Your task to perform on an android device: Clear the shopping cart on target.com. Search for "energizer triple a" on target.com, select the first entry, and add it to the cart. Image 0: 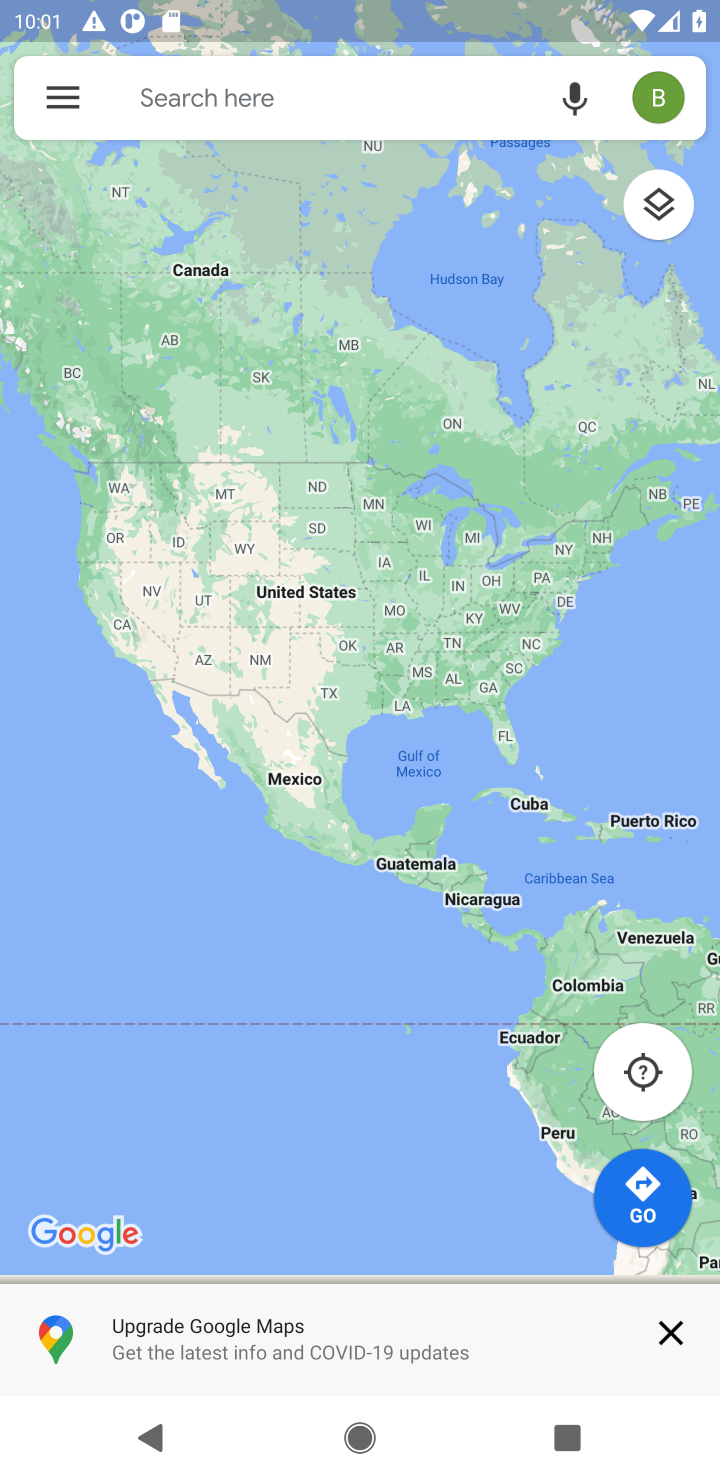
Step 0: press home button
Your task to perform on an android device: Clear the shopping cart on target.com. Search for "energizer triple a" on target.com, select the first entry, and add it to the cart. Image 1: 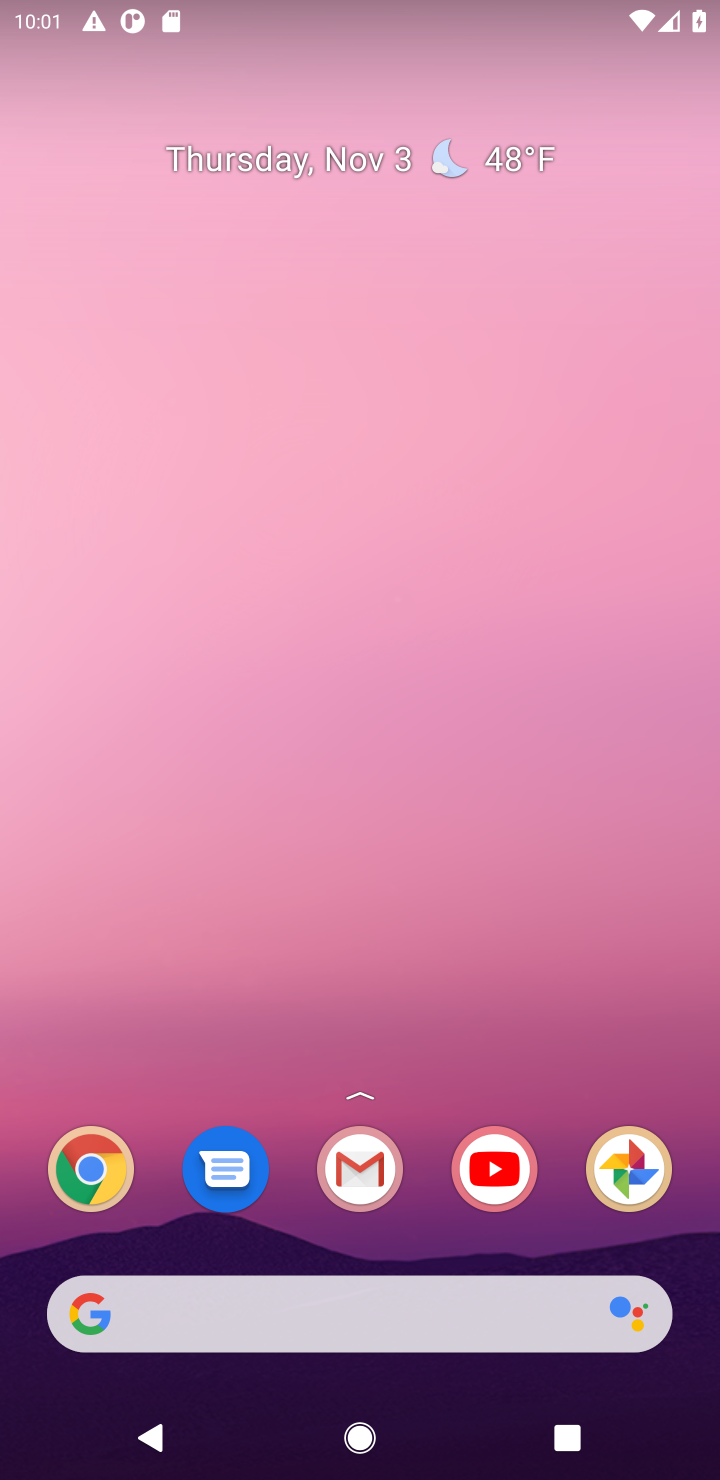
Step 1: drag from (440, 1105) to (451, 221)
Your task to perform on an android device: Clear the shopping cart on target.com. Search for "energizer triple a" on target.com, select the first entry, and add it to the cart. Image 2: 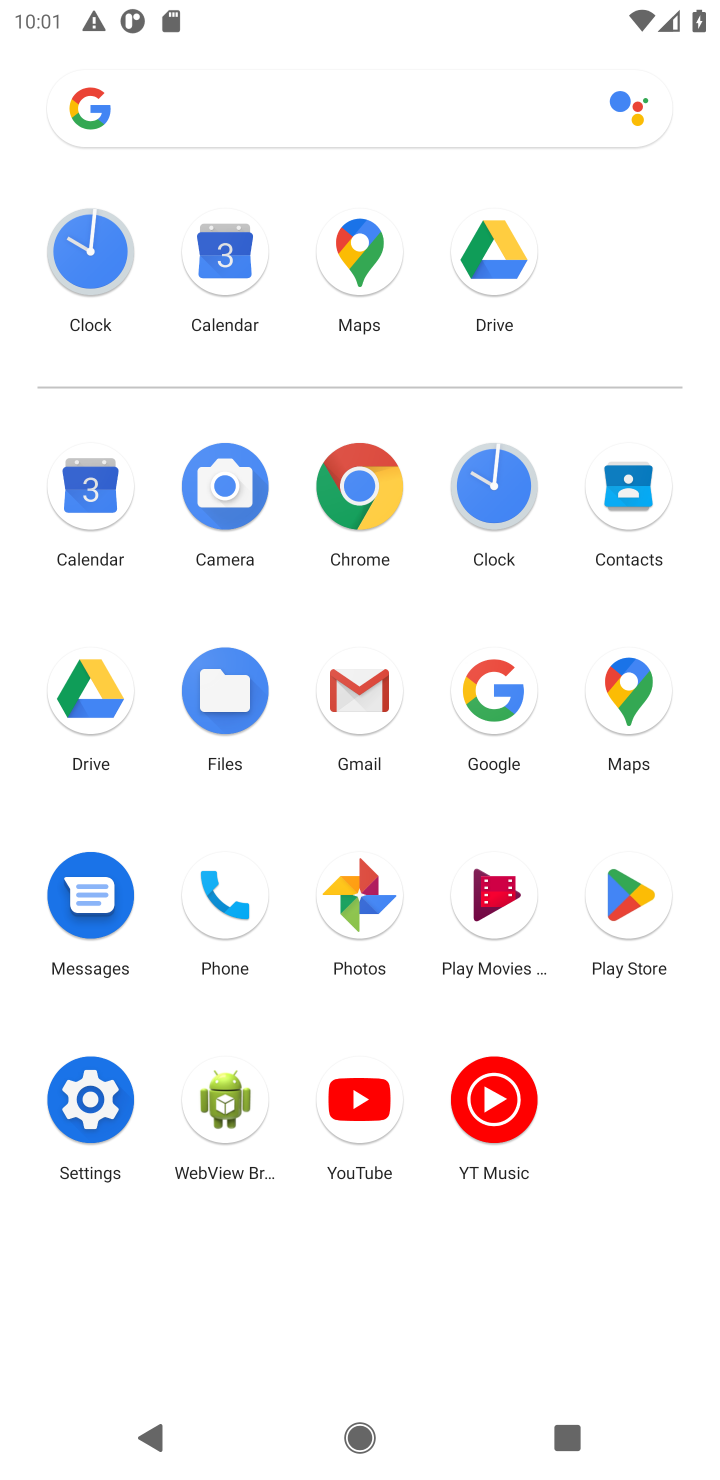
Step 2: click (369, 477)
Your task to perform on an android device: Clear the shopping cart on target.com. Search for "energizer triple a" on target.com, select the first entry, and add it to the cart. Image 3: 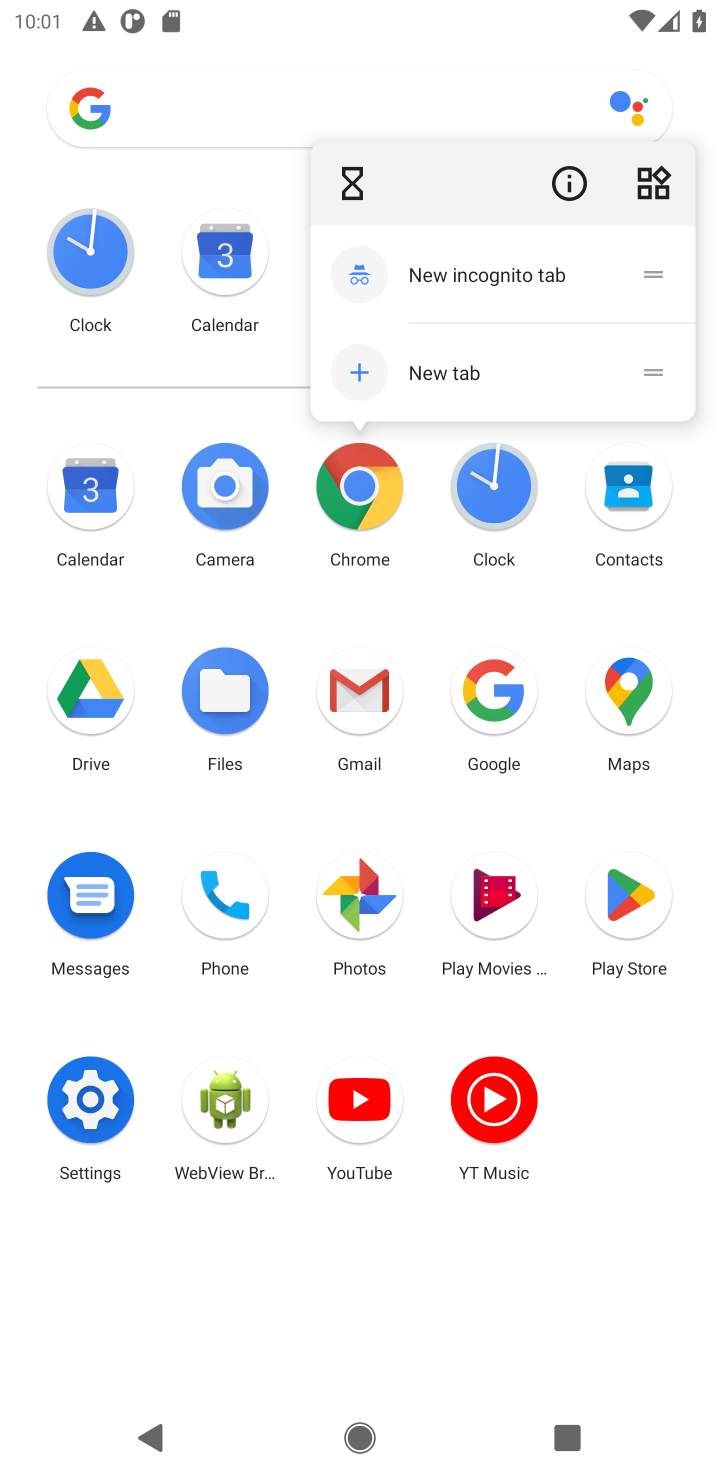
Step 3: click (359, 485)
Your task to perform on an android device: Clear the shopping cart on target.com. Search for "energizer triple a" on target.com, select the first entry, and add it to the cart. Image 4: 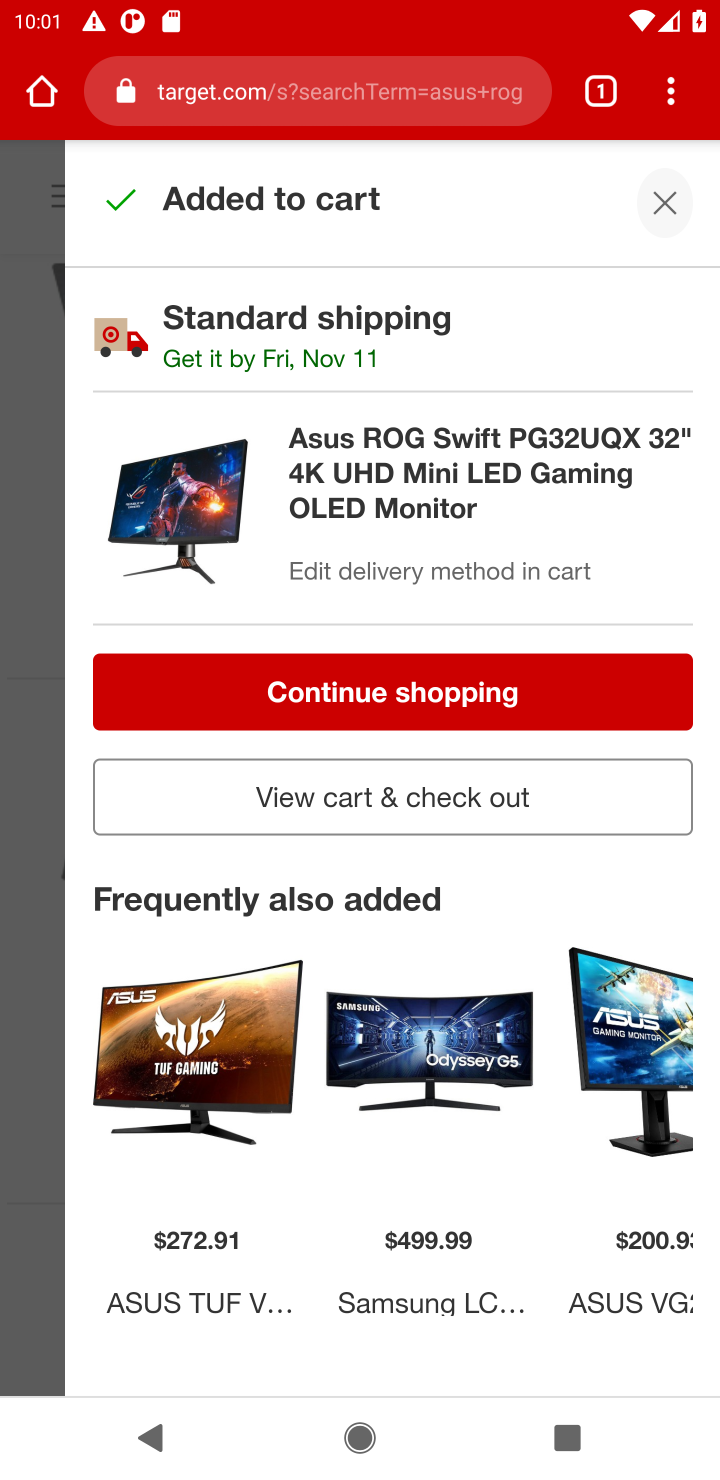
Step 4: click (434, 104)
Your task to perform on an android device: Clear the shopping cart on target.com. Search for "energizer triple a" on target.com, select the first entry, and add it to the cart. Image 5: 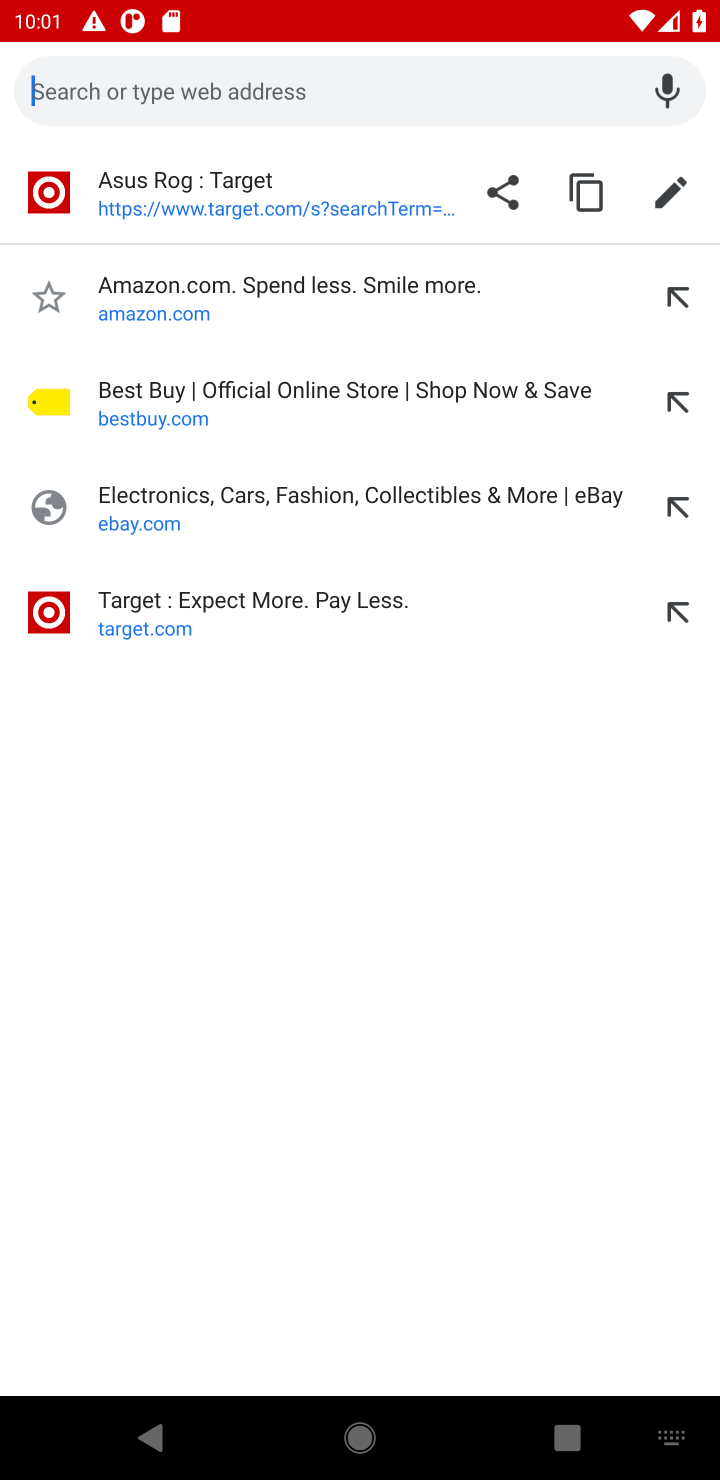
Step 5: type "target.com"
Your task to perform on an android device: Clear the shopping cart on target.com. Search for "energizer triple a" on target.com, select the first entry, and add it to the cart. Image 6: 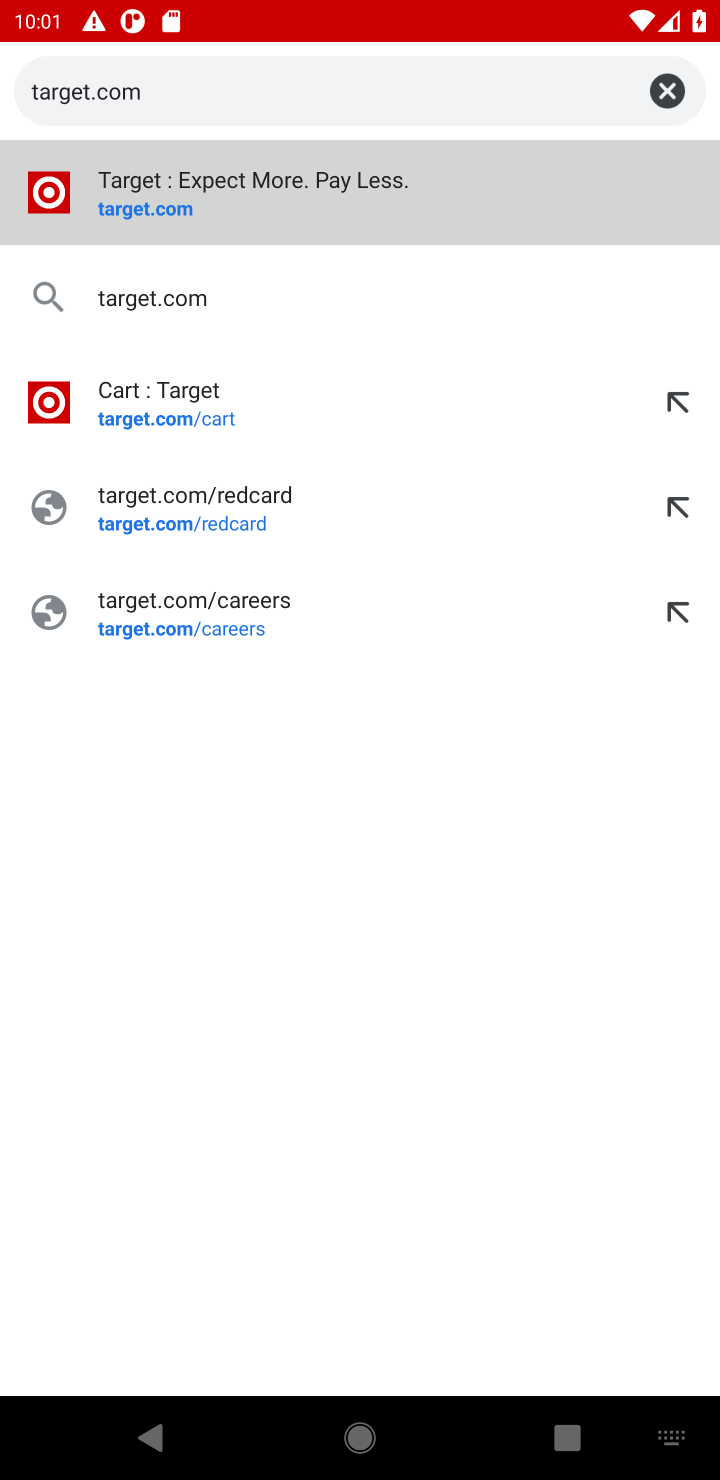
Step 6: press enter
Your task to perform on an android device: Clear the shopping cart on target.com. Search for "energizer triple a" on target.com, select the first entry, and add it to the cart. Image 7: 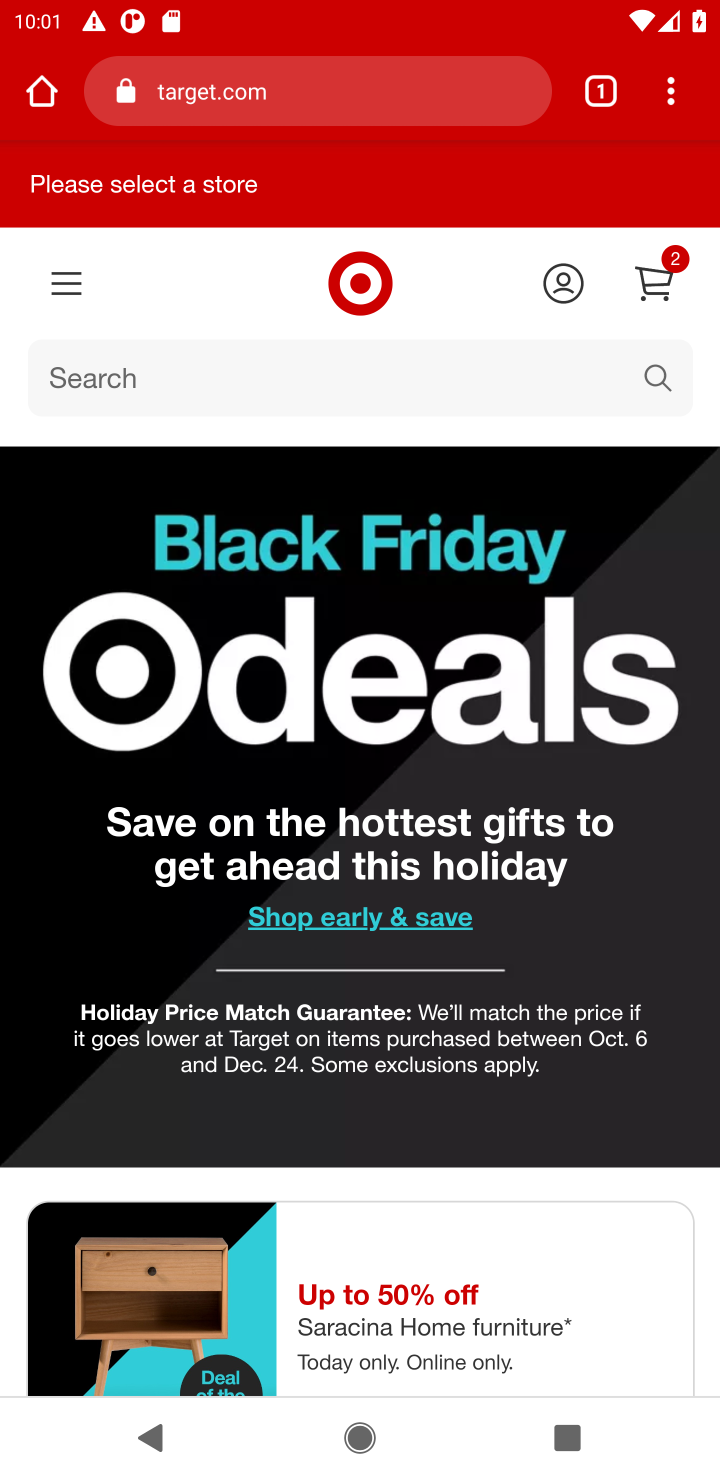
Step 7: click (675, 275)
Your task to perform on an android device: Clear the shopping cart on target.com. Search for "energizer triple a" on target.com, select the first entry, and add it to the cart. Image 8: 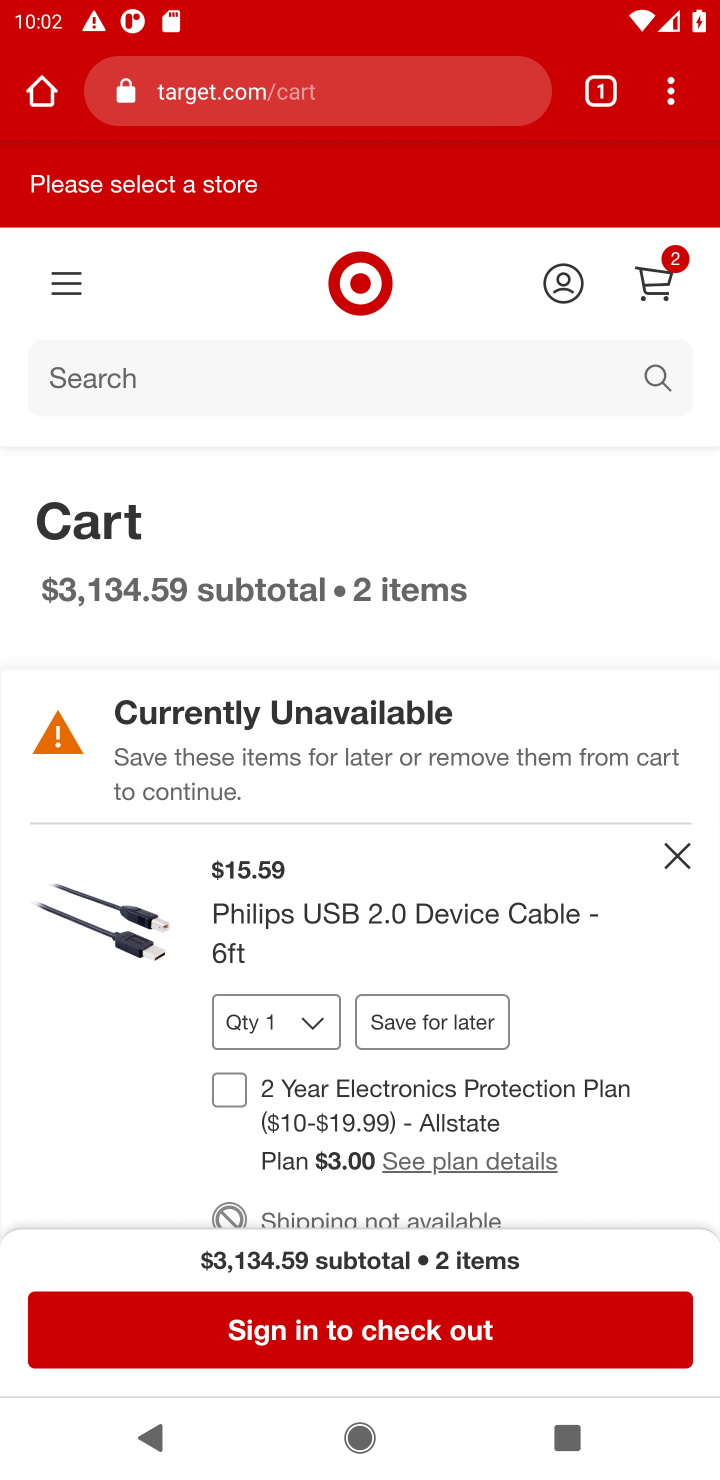
Step 8: click (680, 861)
Your task to perform on an android device: Clear the shopping cart on target.com. Search for "energizer triple a" on target.com, select the first entry, and add it to the cart. Image 9: 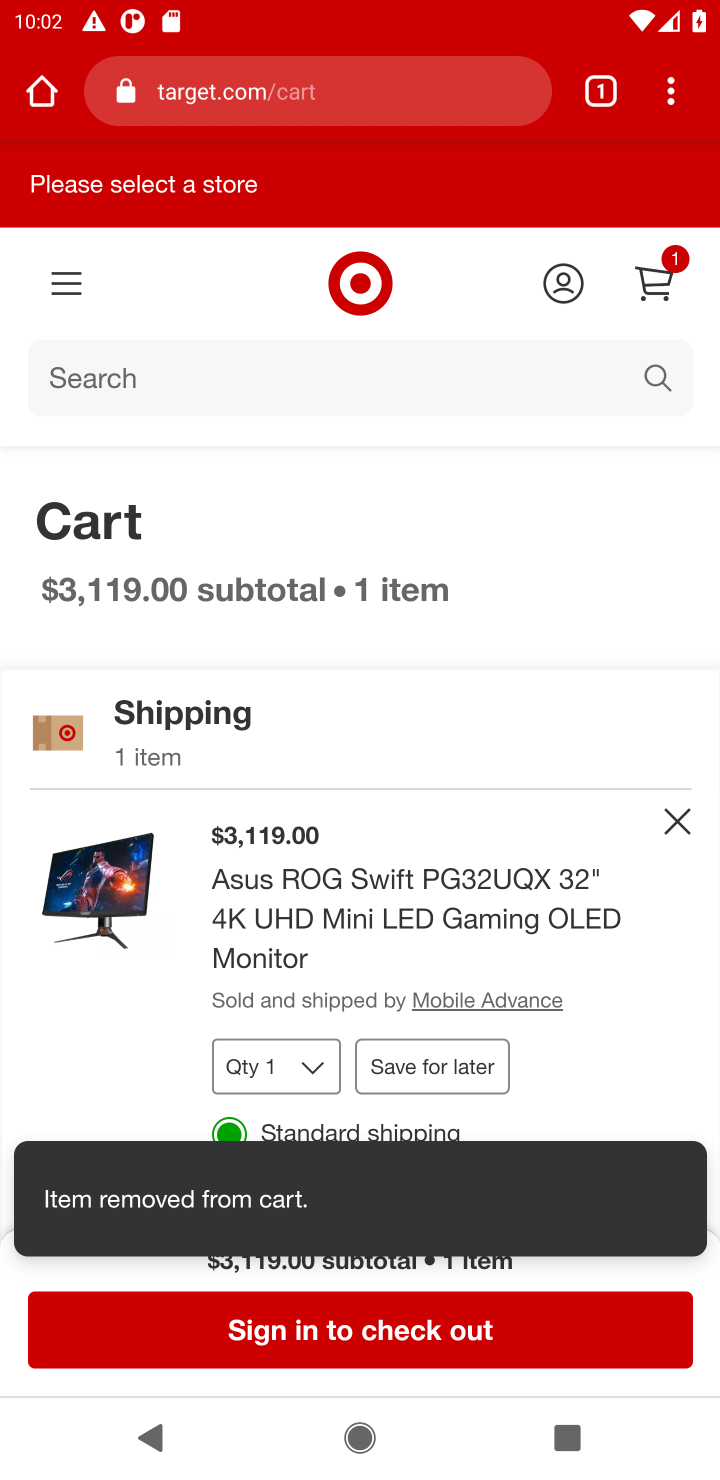
Step 9: click (670, 815)
Your task to perform on an android device: Clear the shopping cart on target.com. Search for "energizer triple a" on target.com, select the first entry, and add it to the cart. Image 10: 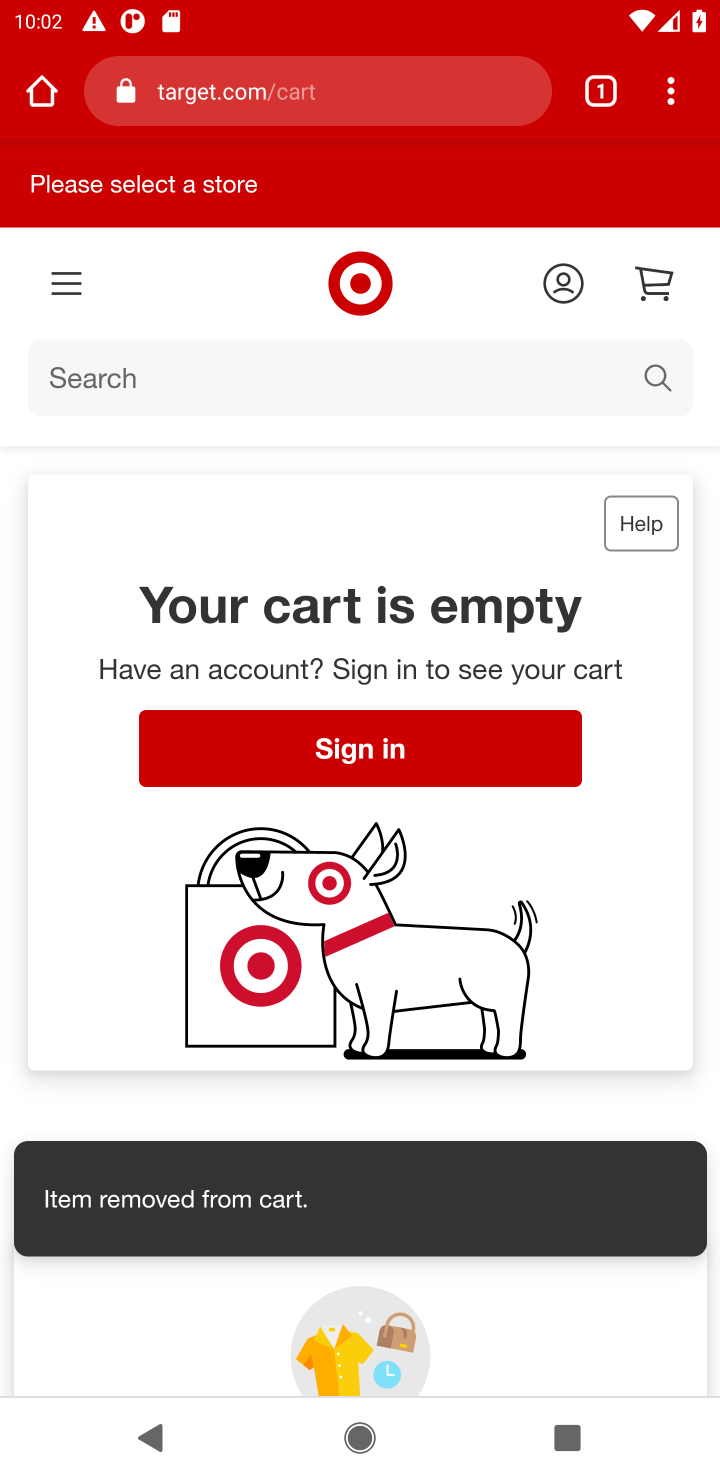
Step 10: click (218, 380)
Your task to perform on an android device: Clear the shopping cart on target.com. Search for "energizer triple a" on target.com, select the first entry, and add it to the cart. Image 11: 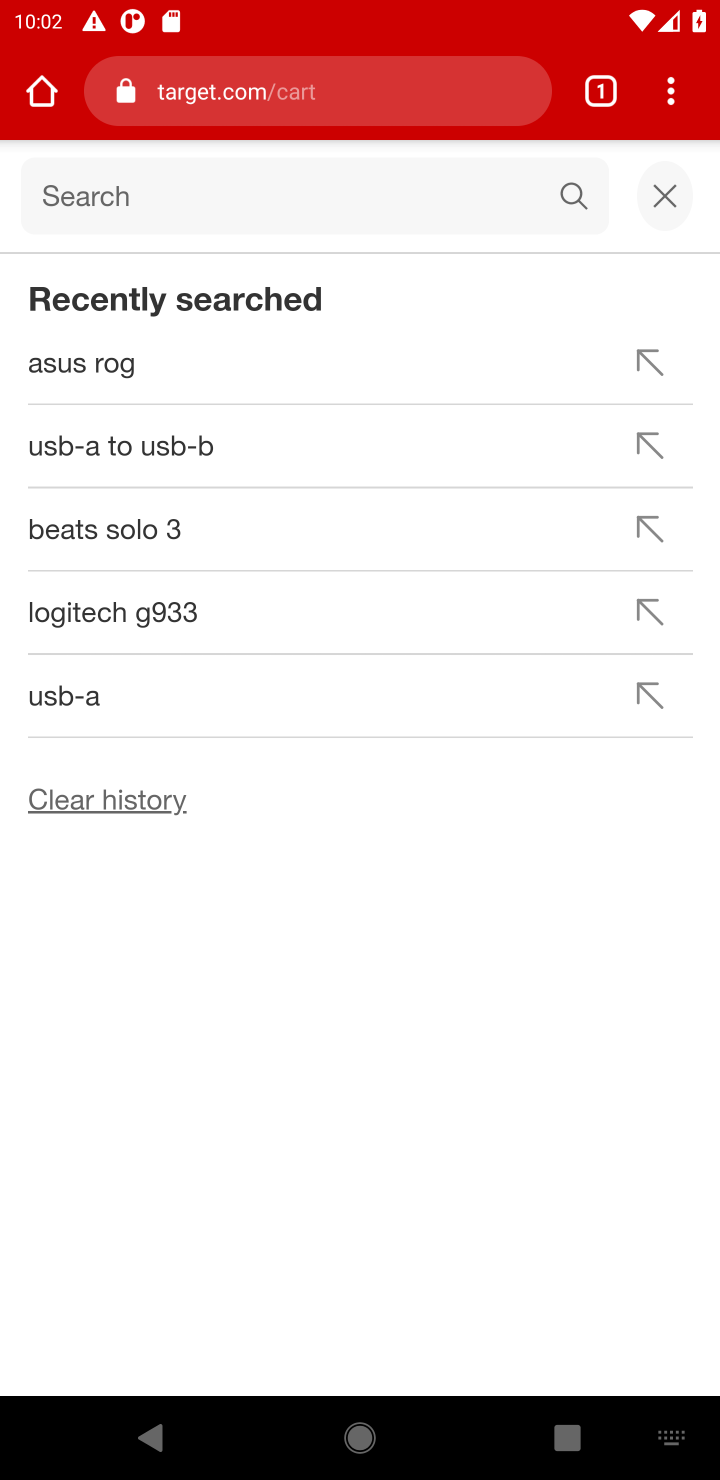
Step 11: type "energizer triple a"
Your task to perform on an android device: Clear the shopping cart on target.com. Search for "energizer triple a" on target.com, select the first entry, and add it to the cart. Image 12: 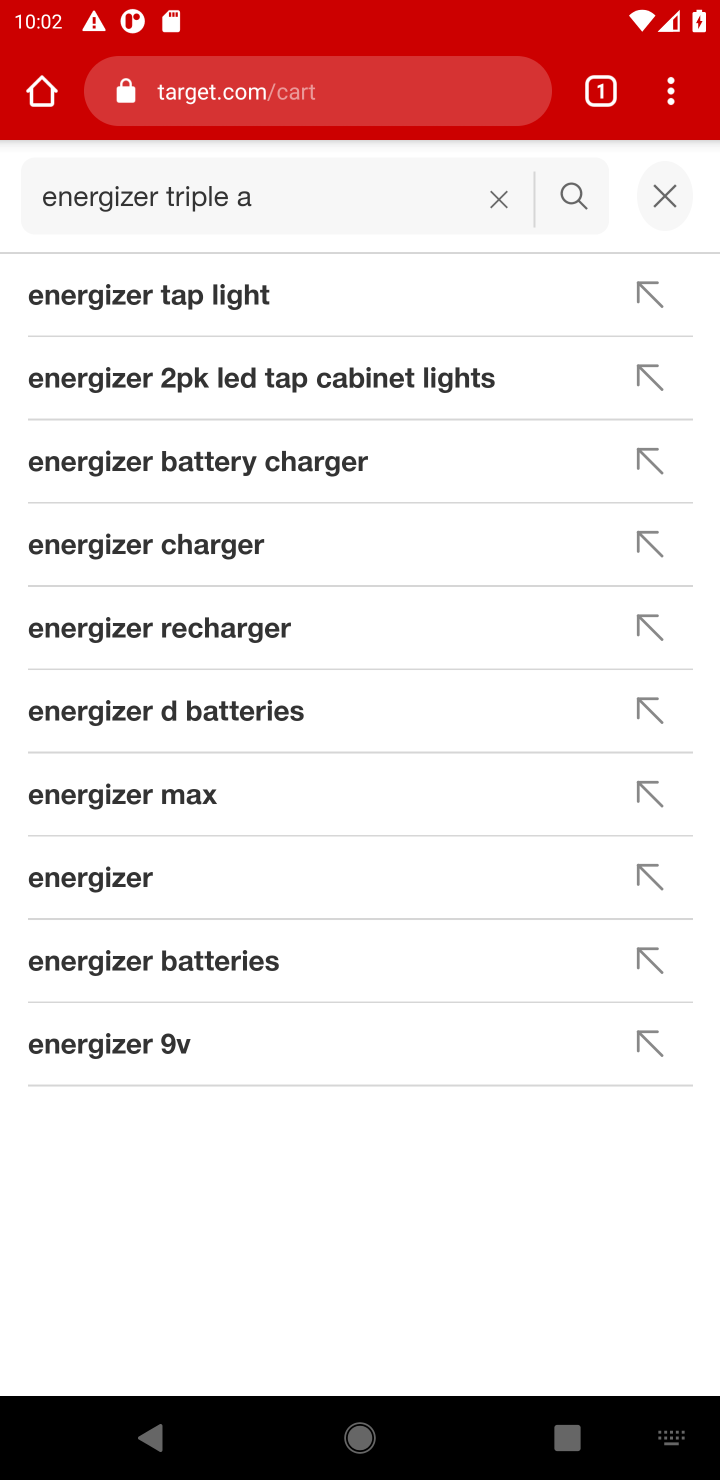
Step 12: press enter
Your task to perform on an android device: Clear the shopping cart on target.com. Search for "energizer triple a" on target.com, select the first entry, and add it to the cart. Image 13: 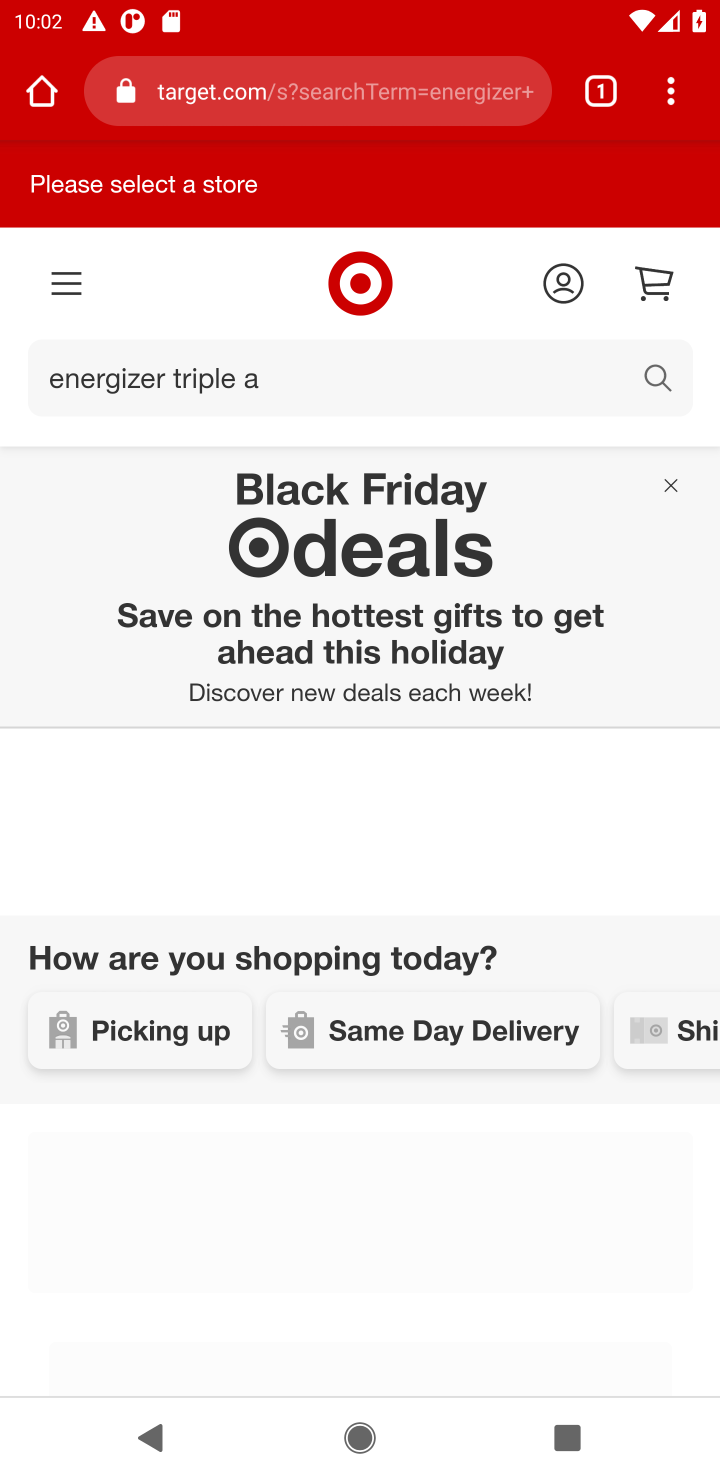
Step 13: drag from (387, 1163) to (459, 314)
Your task to perform on an android device: Clear the shopping cart on target.com. Search for "energizer triple a" on target.com, select the first entry, and add it to the cart. Image 14: 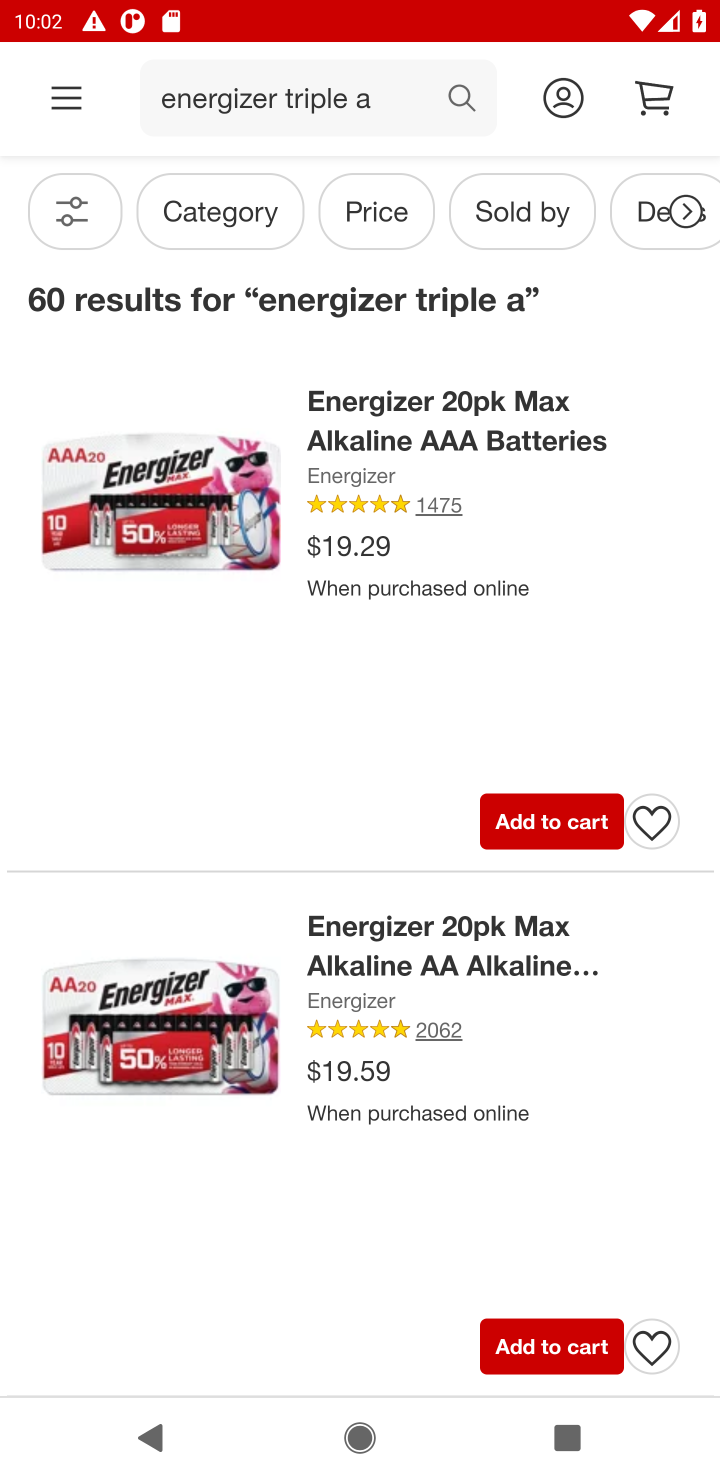
Step 14: click (526, 816)
Your task to perform on an android device: Clear the shopping cart on target.com. Search for "energizer triple a" on target.com, select the first entry, and add it to the cart. Image 15: 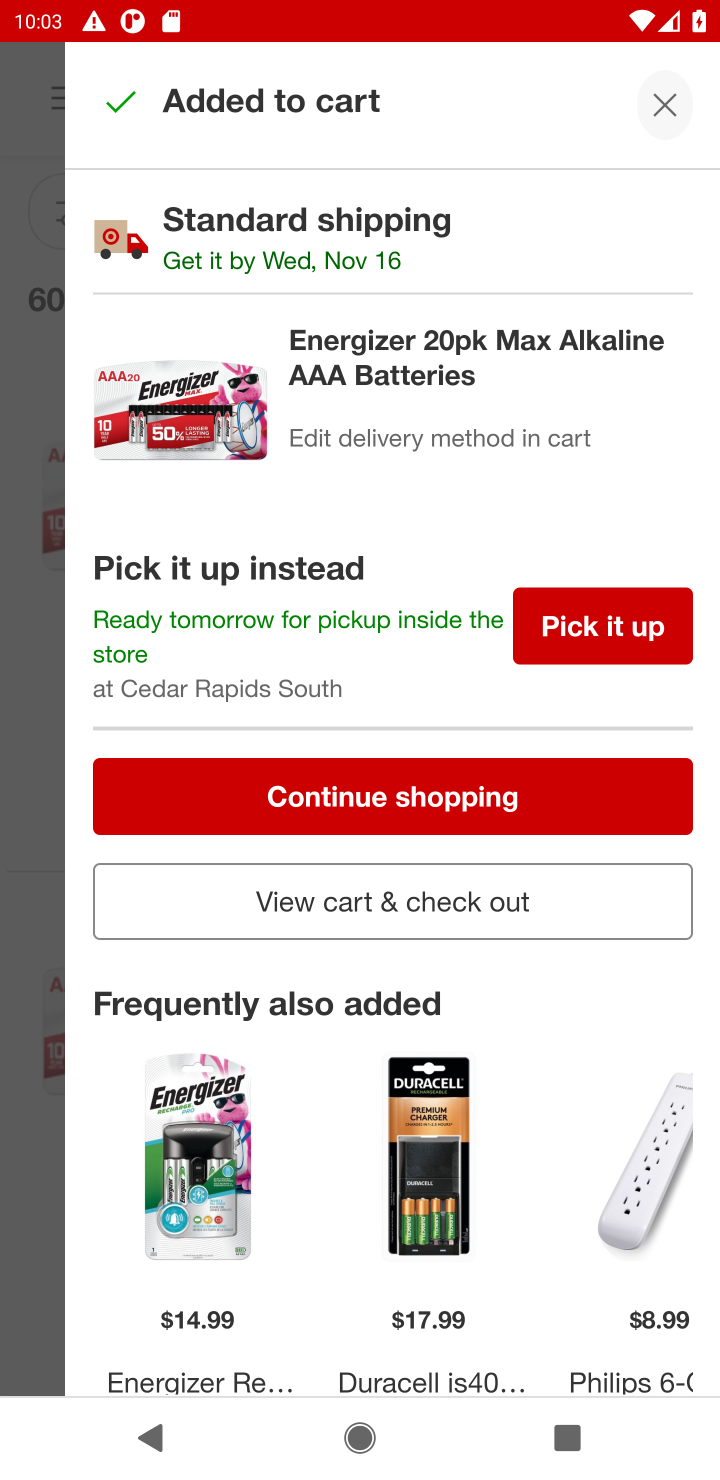
Step 15: task complete